Your task to perform on an android device: Open Google Chrome Image 0: 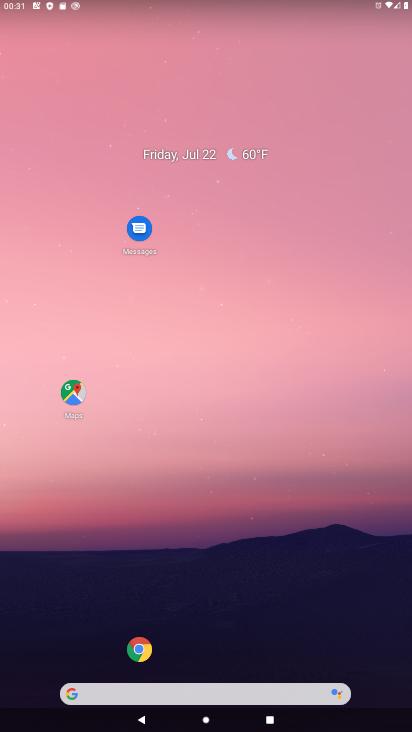
Step 0: click (133, 652)
Your task to perform on an android device: Open Google Chrome Image 1: 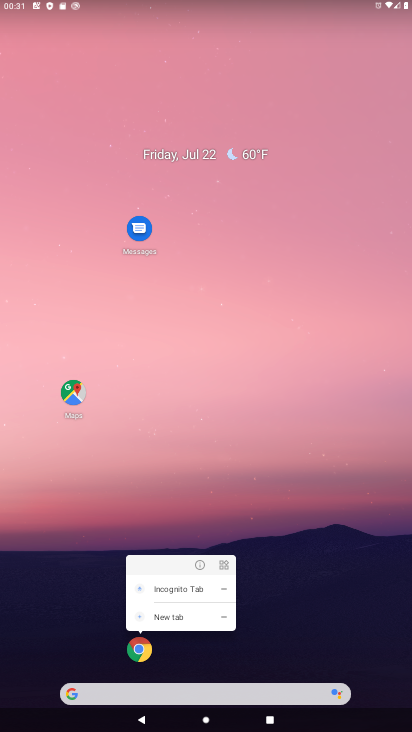
Step 1: click (124, 644)
Your task to perform on an android device: Open Google Chrome Image 2: 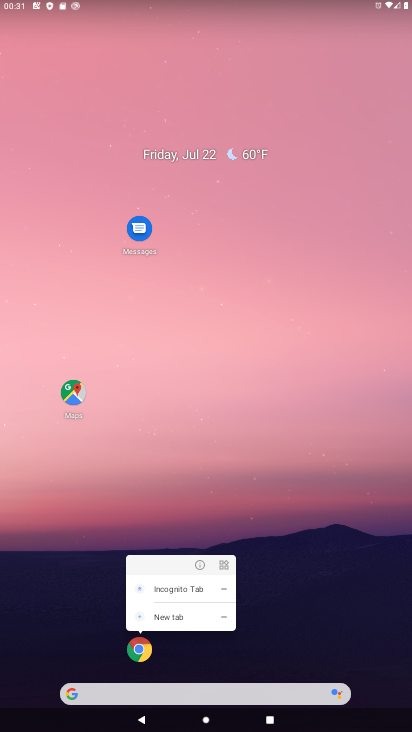
Step 2: click (140, 663)
Your task to perform on an android device: Open Google Chrome Image 3: 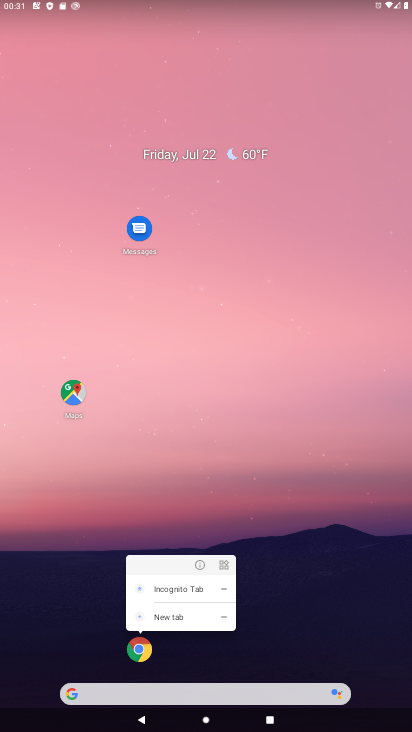
Step 3: click (132, 663)
Your task to perform on an android device: Open Google Chrome Image 4: 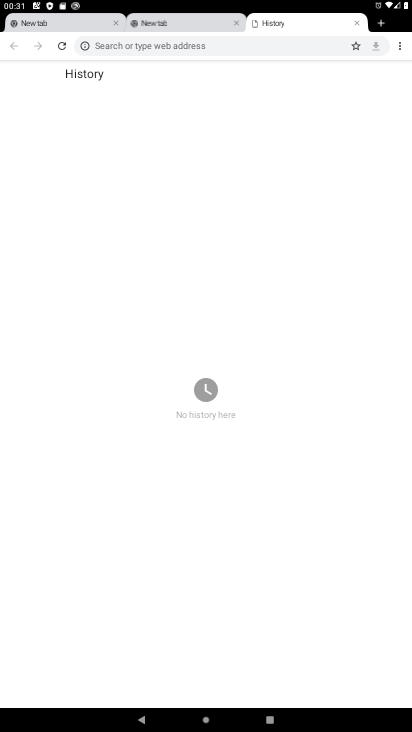
Step 4: click (374, 21)
Your task to perform on an android device: Open Google Chrome Image 5: 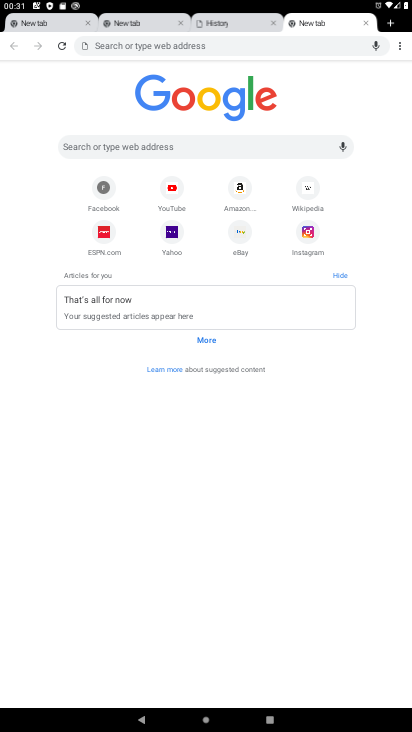
Step 5: task complete